Your task to perform on an android device: Clear the shopping cart on newegg. Add "dell alienware" to the cart on newegg Image 0: 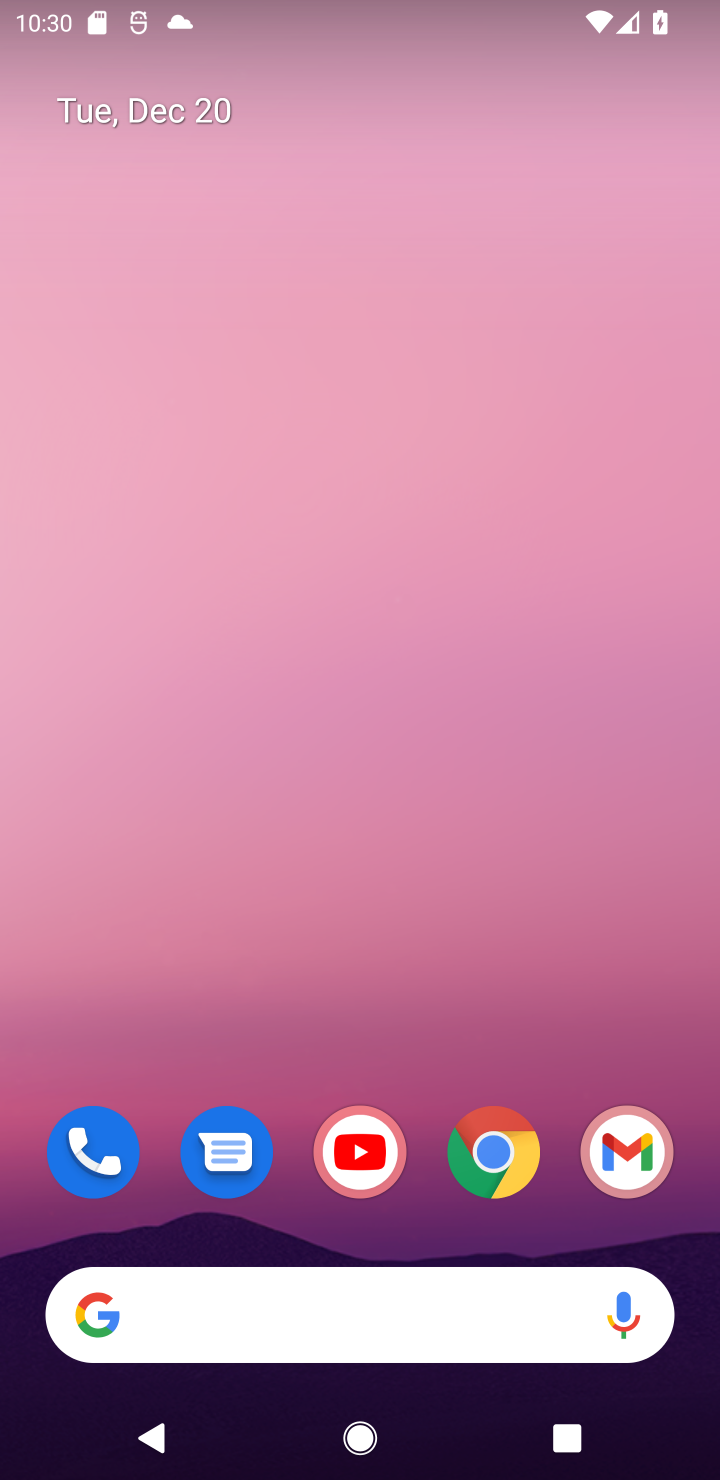
Step 0: click (469, 1173)
Your task to perform on an android device: Clear the shopping cart on newegg. Add "dell alienware" to the cart on newegg Image 1: 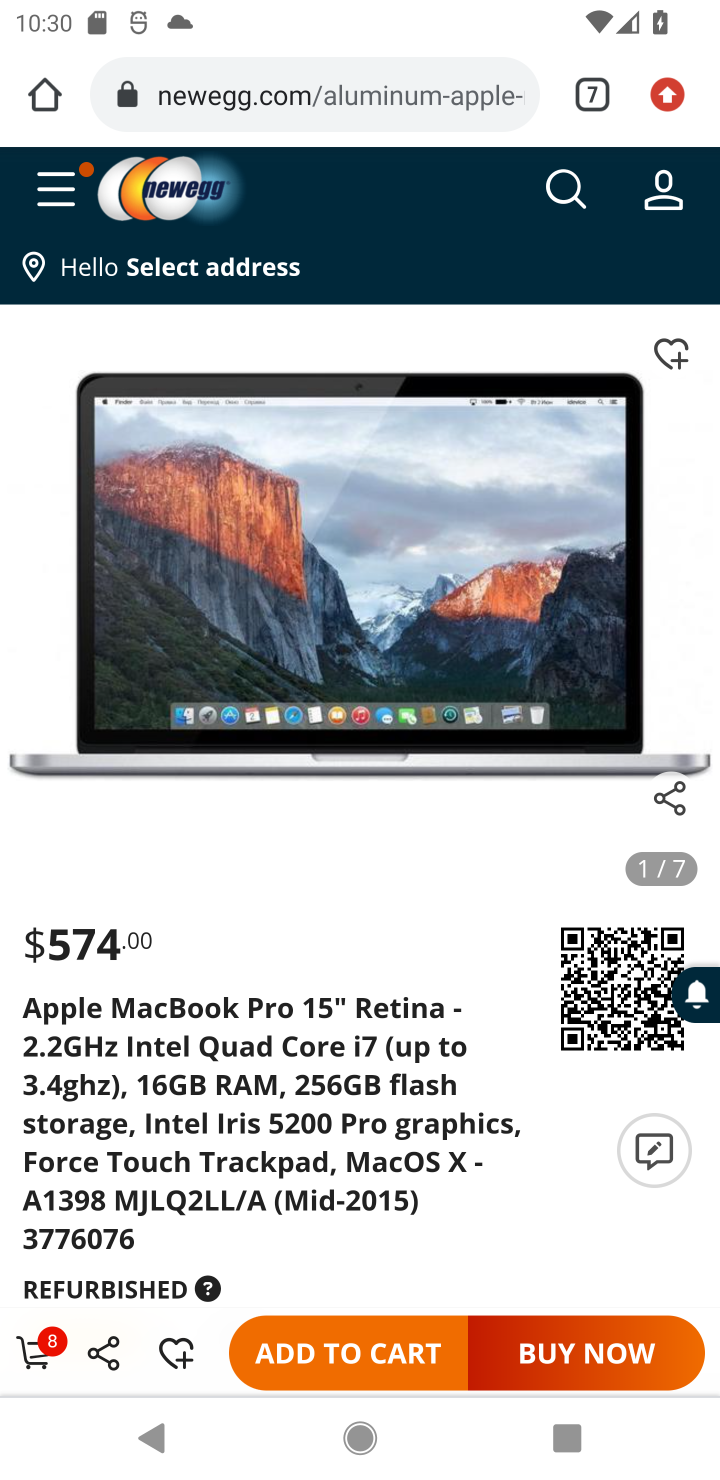
Step 1: click (568, 187)
Your task to perform on an android device: Clear the shopping cart on newegg. Add "dell alienware" to the cart on newegg Image 2: 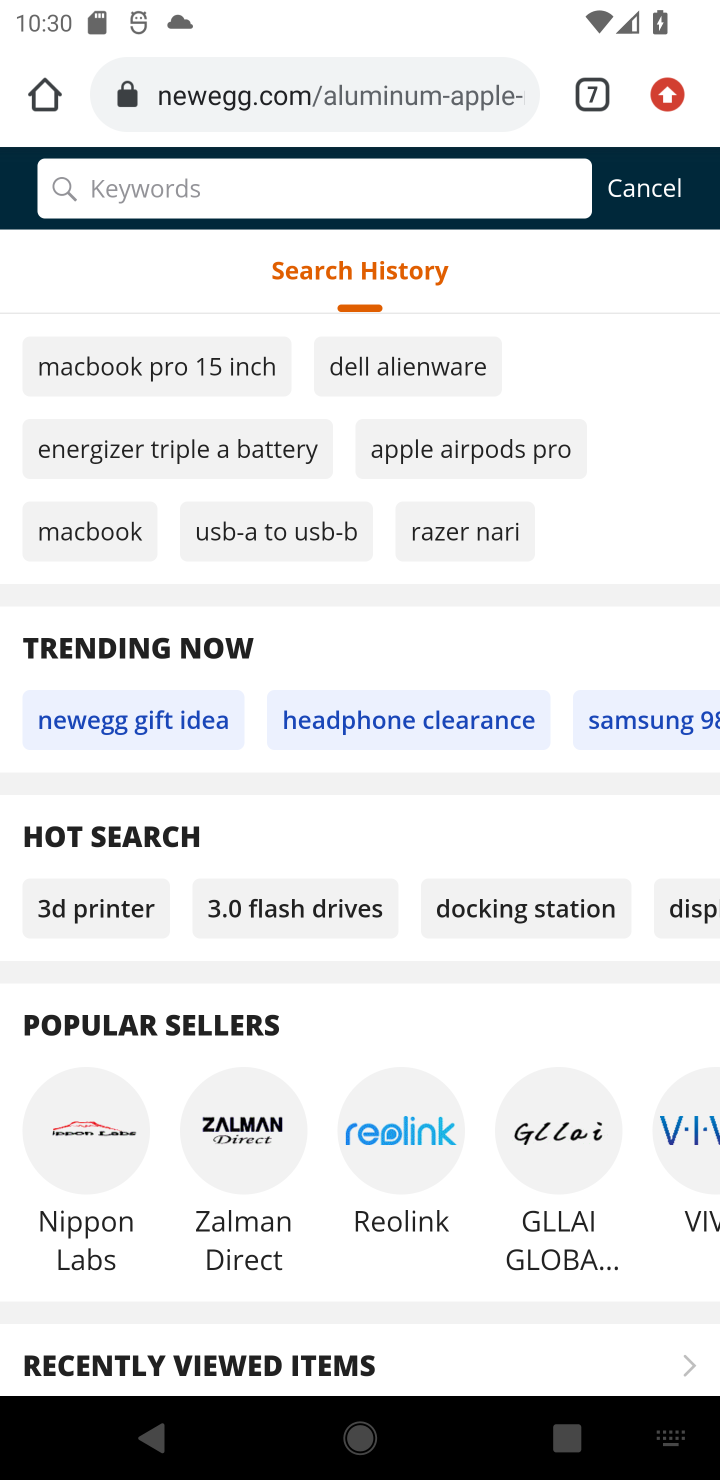
Step 2: click (636, 190)
Your task to perform on an android device: Clear the shopping cart on newegg. Add "dell alienware" to the cart on newegg Image 3: 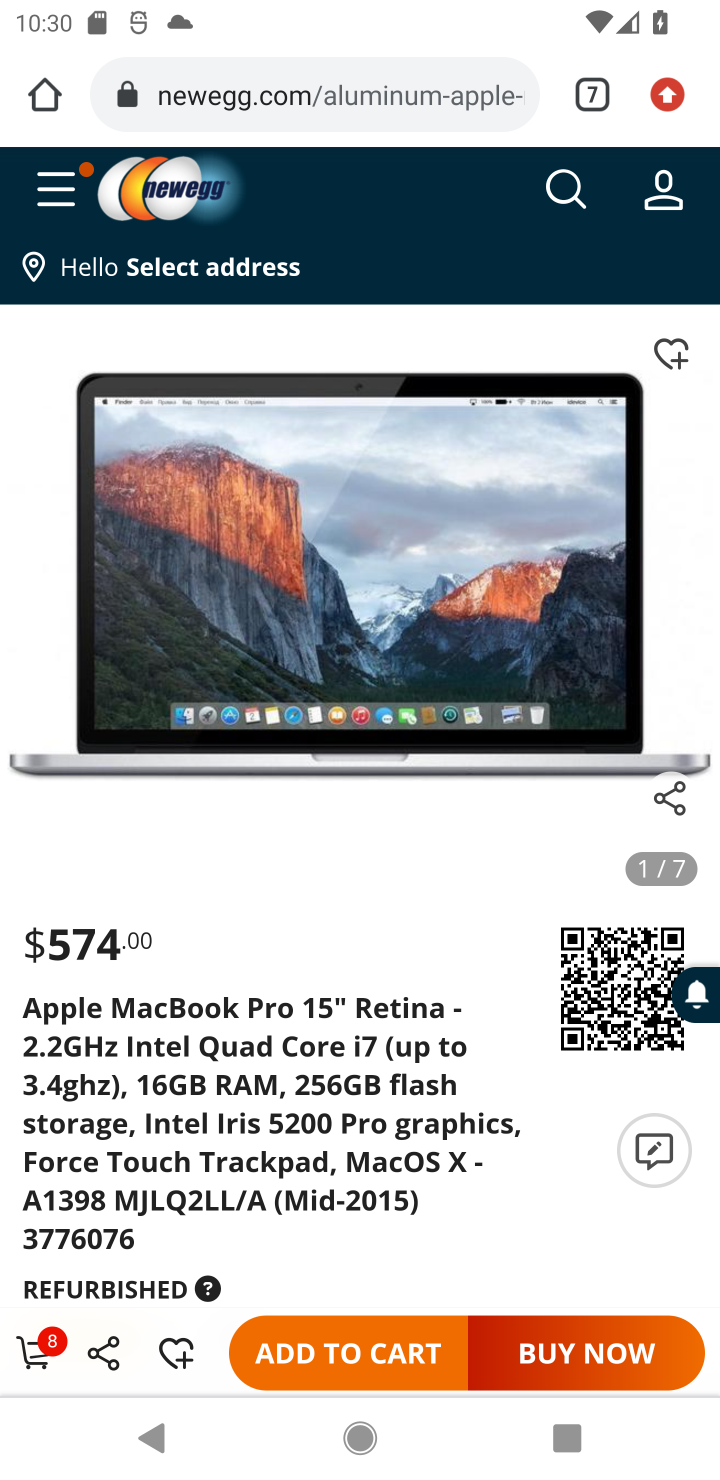
Step 3: click (44, 1350)
Your task to perform on an android device: Clear the shopping cart on newegg. Add "dell alienware" to the cart on newegg Image 4: 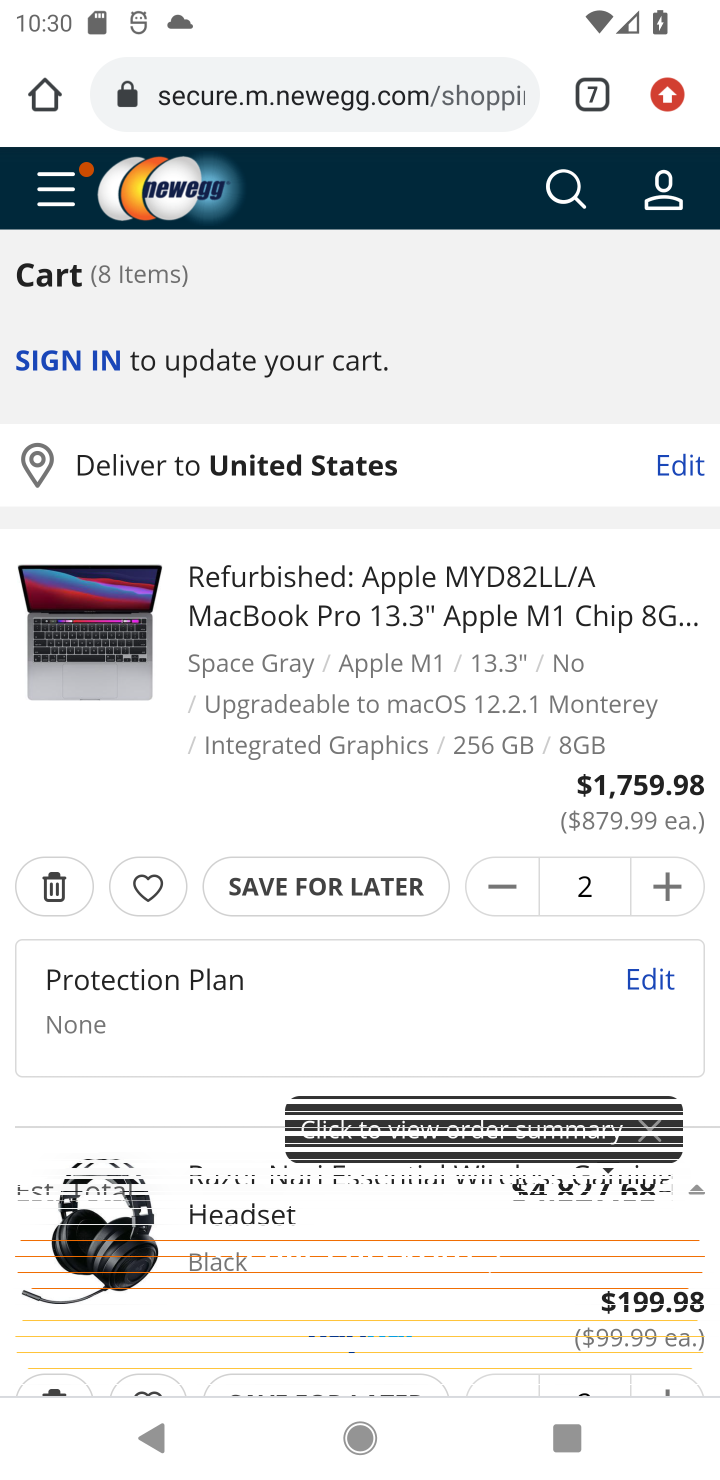
Step 4: click (43, 881)
Your task to perform on an android device: Clear the shopping cart on newegg. Add "dell alienware" to the cart on newegg Image 5: 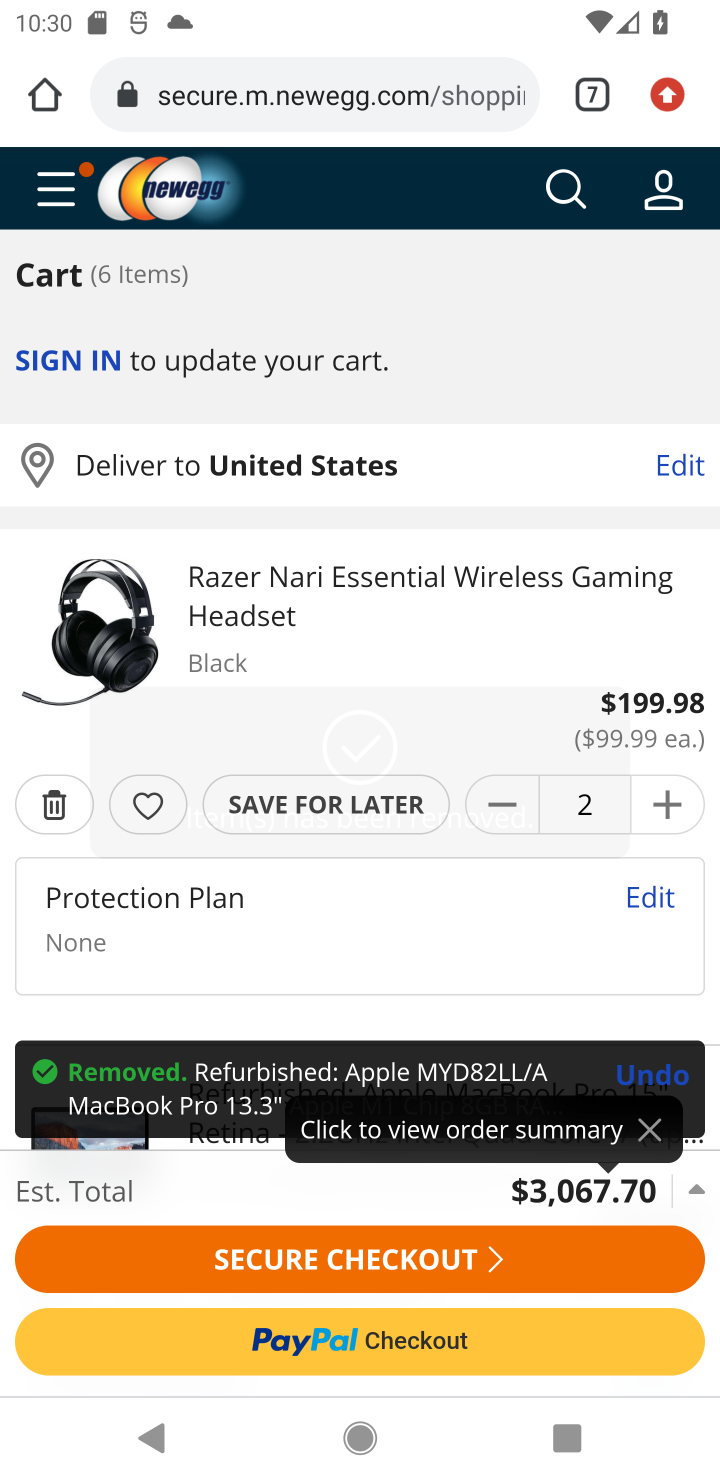
Step 5: click (55, 807)
Your task to perform on an android device: Clear the shopping cart on newegg. Add "dell alienware" to the cart on newegg Image 6: 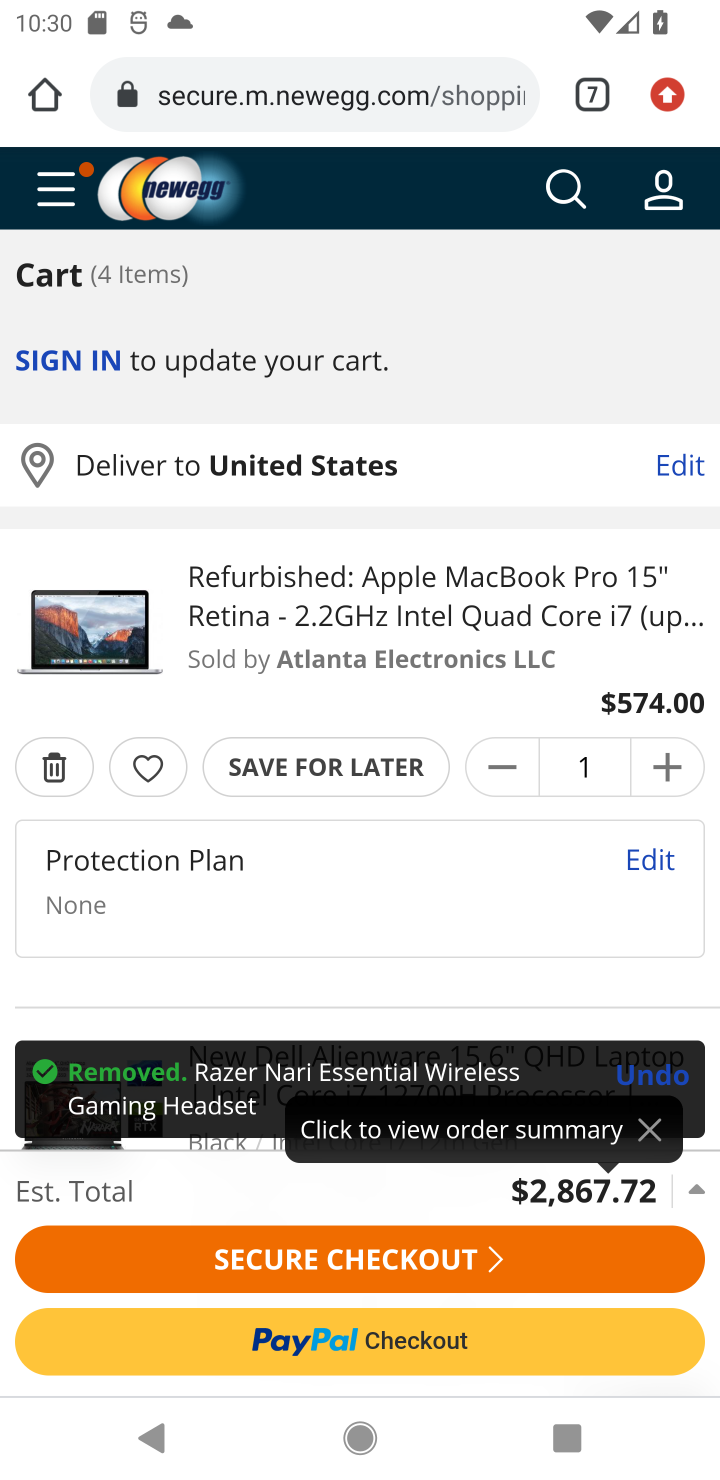
Step 6: click (56, 775)
Your task to perform on an android device: Clear the shopping cart on newegg. Add "dell alienware" to the cart on newegg Image 7: 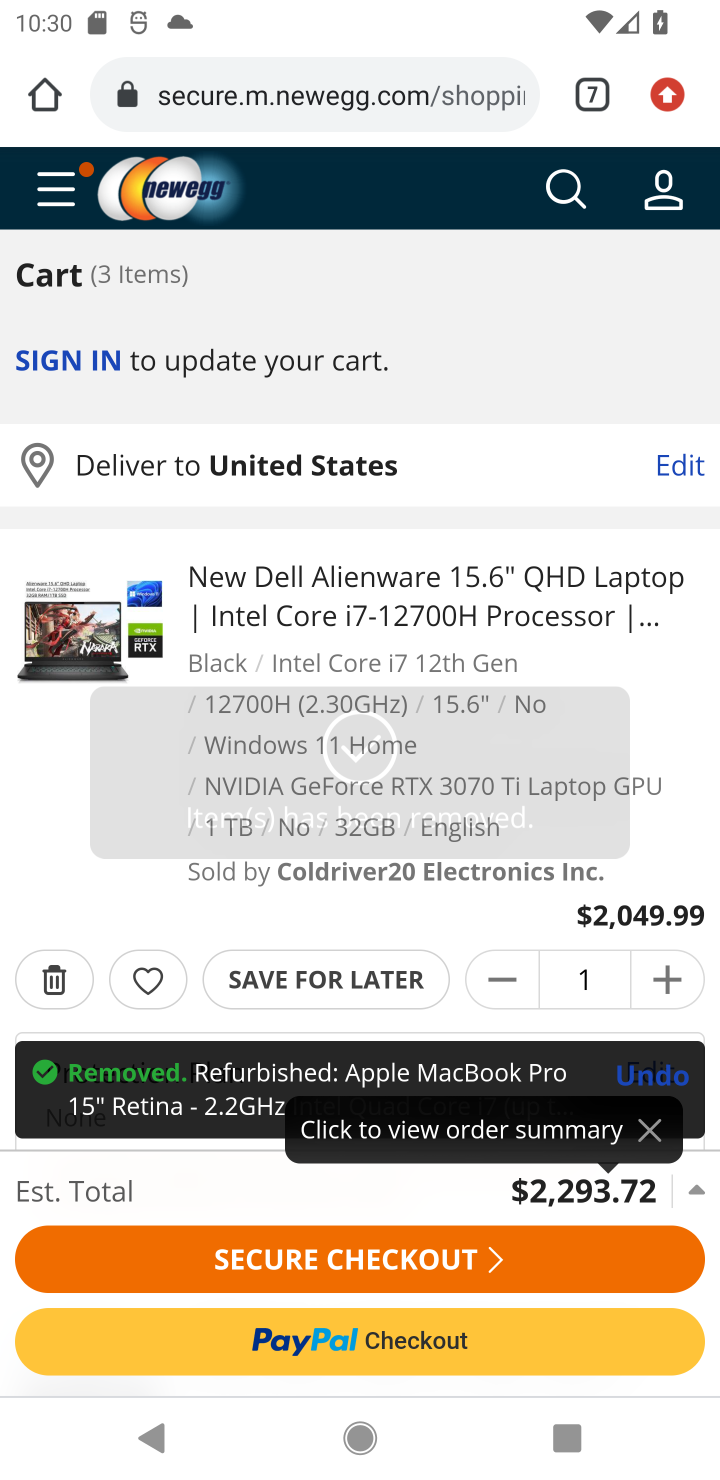
Step 7: click (51, 972)
Your task to perform on an android device: Clear the shopping cart on newegg. Add "dell alienware" to the cart on newegg Image 8: 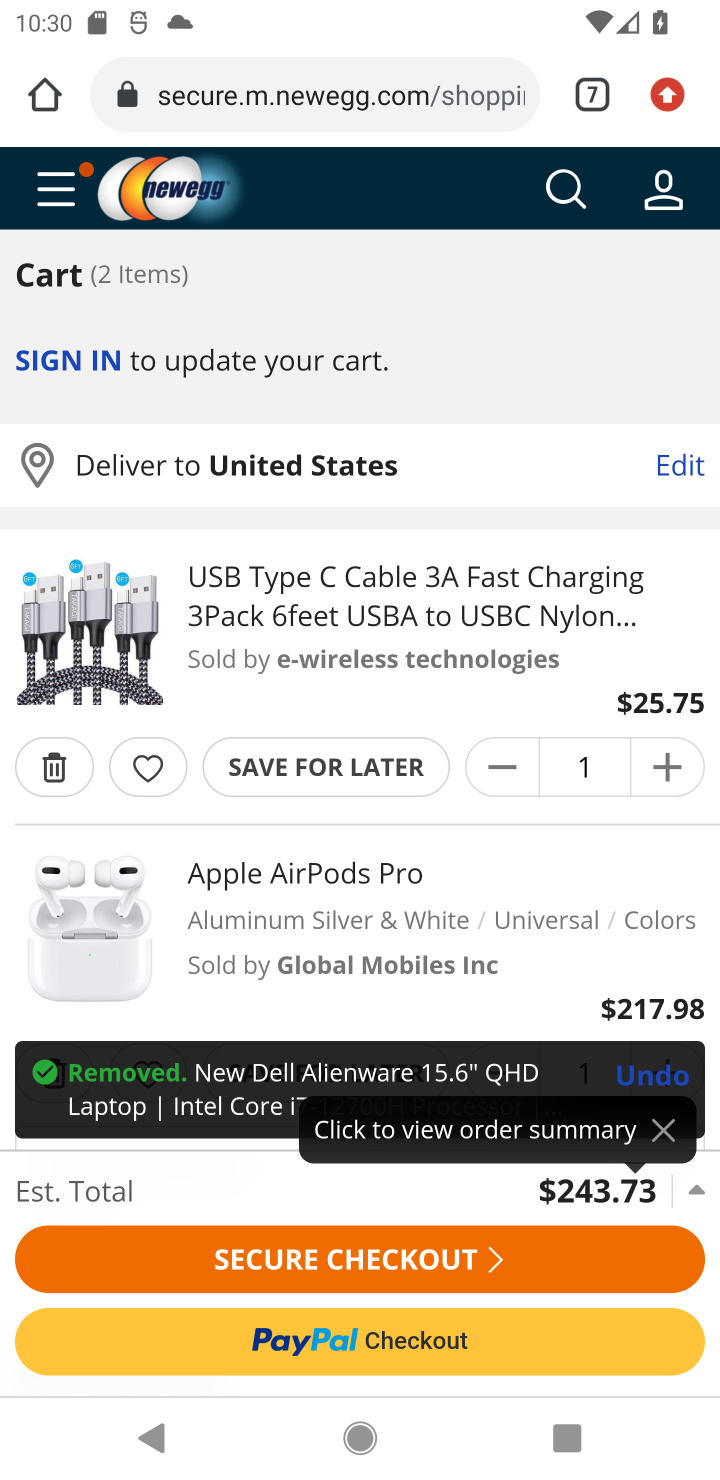
Step 8: click (52, 773)
Your task to perform on an android device: Clear the shopping cart on newegg. Add "dell alienware" to the cart on newegg Image 9: 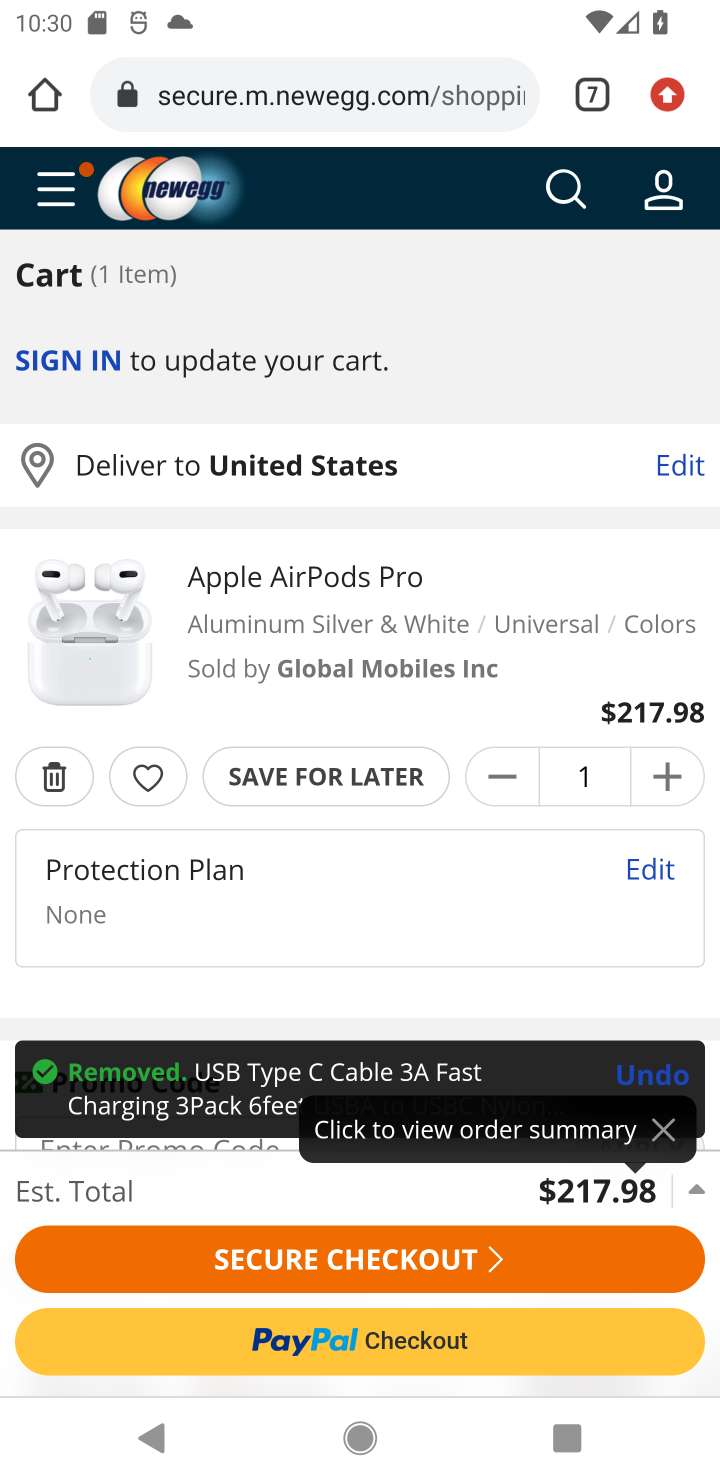
Step 9: click (52, 773)
Your task to perform on an android device: Clear the shopping cart on newegg. Add "dell alienware" to the cart on newegg Image 10: 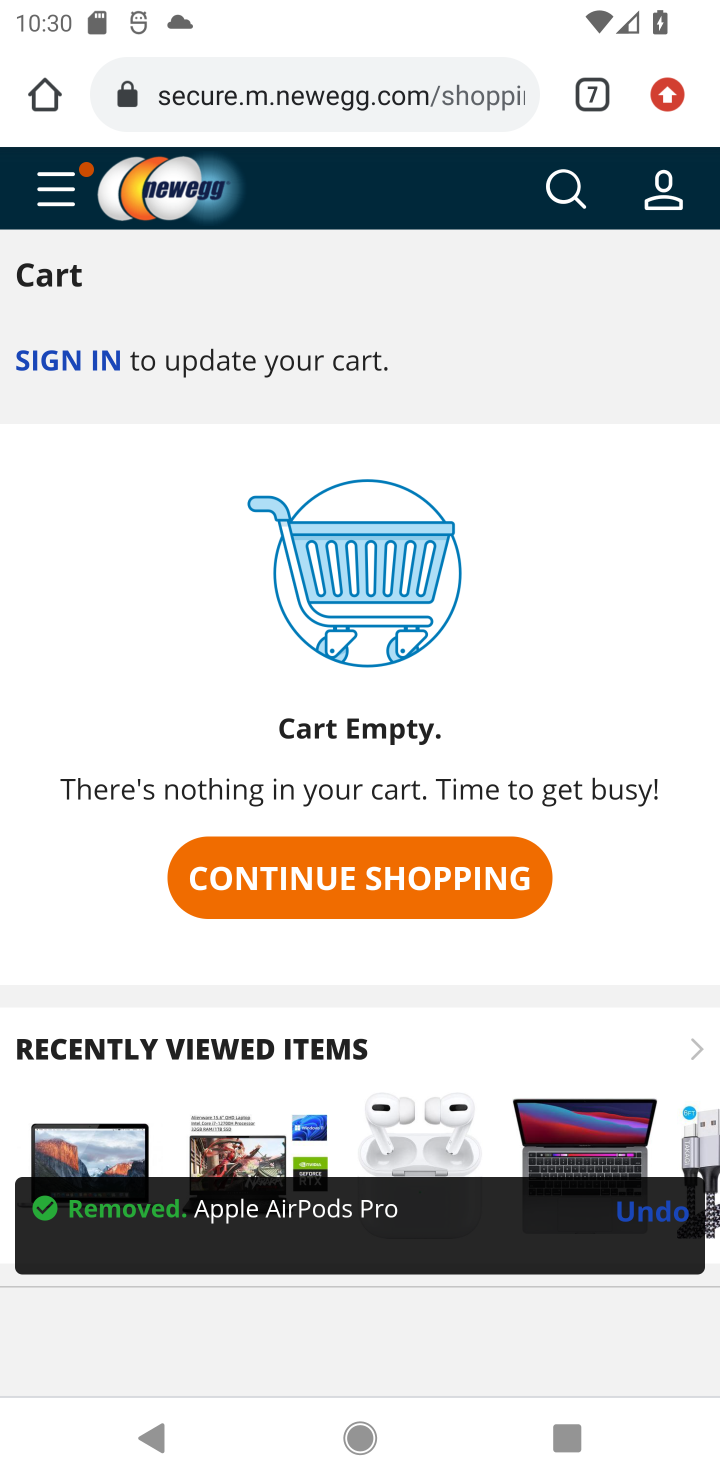
Step 10: click (566, 190)
Your task to perform on an android device: Clear the shopping cart on newegg. Add "dell alienware" to the cart on newegg Image 11: 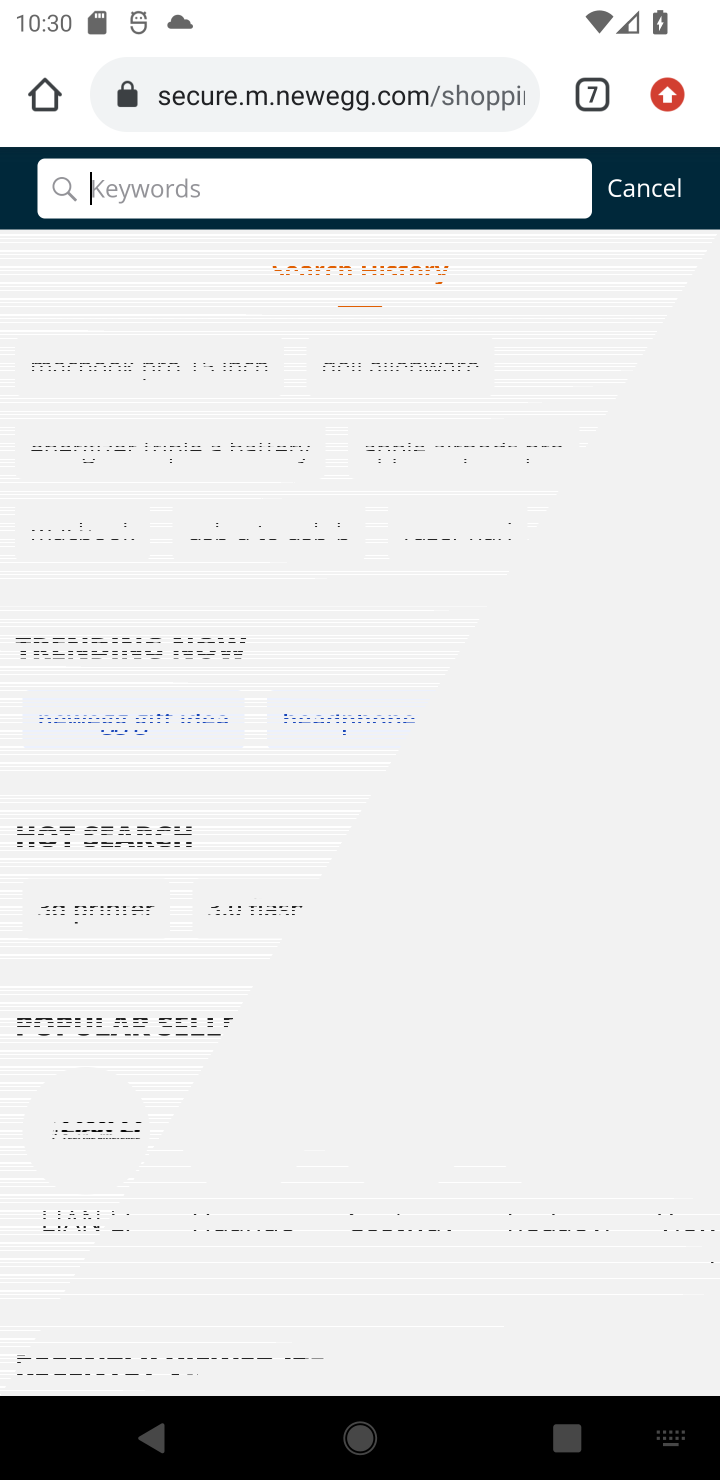
Step 11: type "dell alienware"
Your task to perform on an android device: Clear the shopping cart on newegg. Add "dell alienware" to the cart on newegg Image 12: 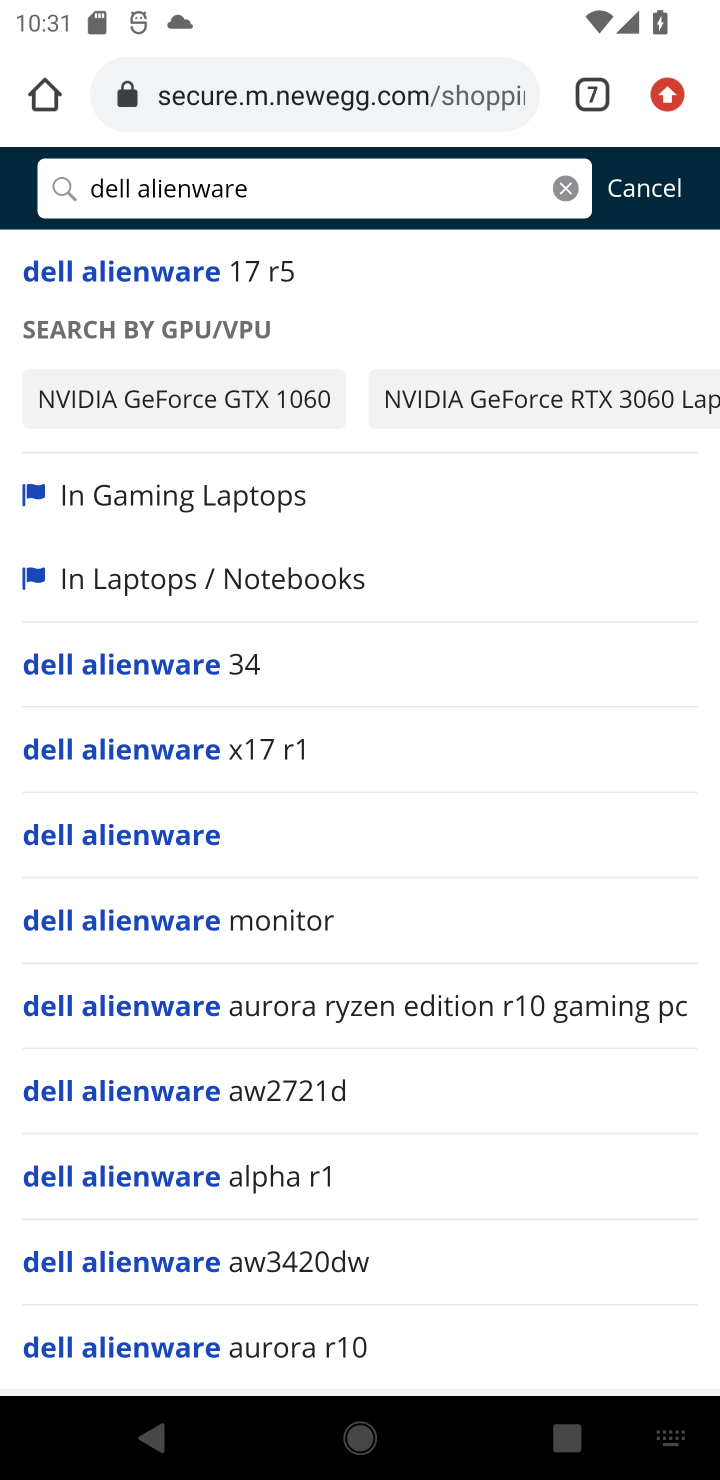
Step 12: click (144, 826)
Your task to perform on an android device: Clear the shopping cart on newegg. Add "dell alienware" to the cart on newegg Image 13: 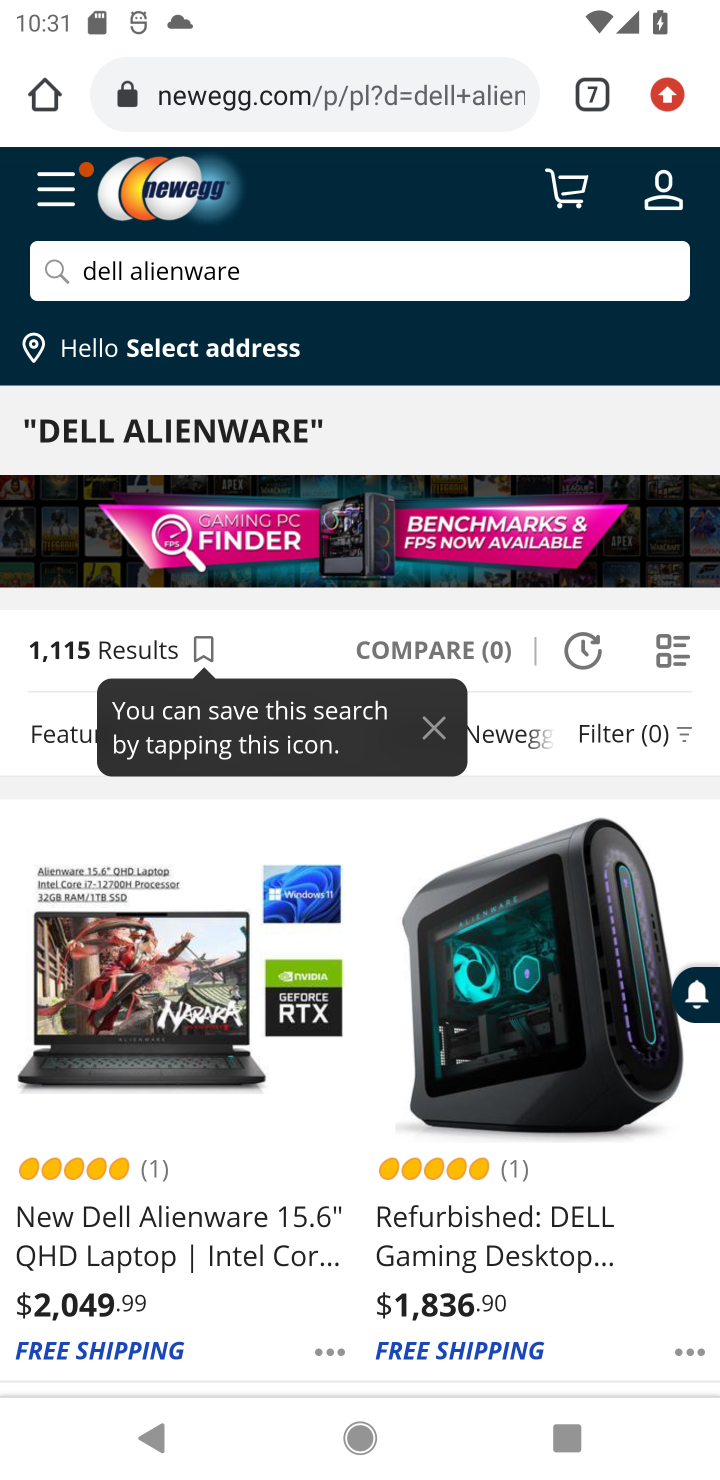
Step 13: click (206, 1217)
Your task to perform on an android device: Clear the shopping cart on newegg. Add "dell alienware" to the cart on newegg Image 14: 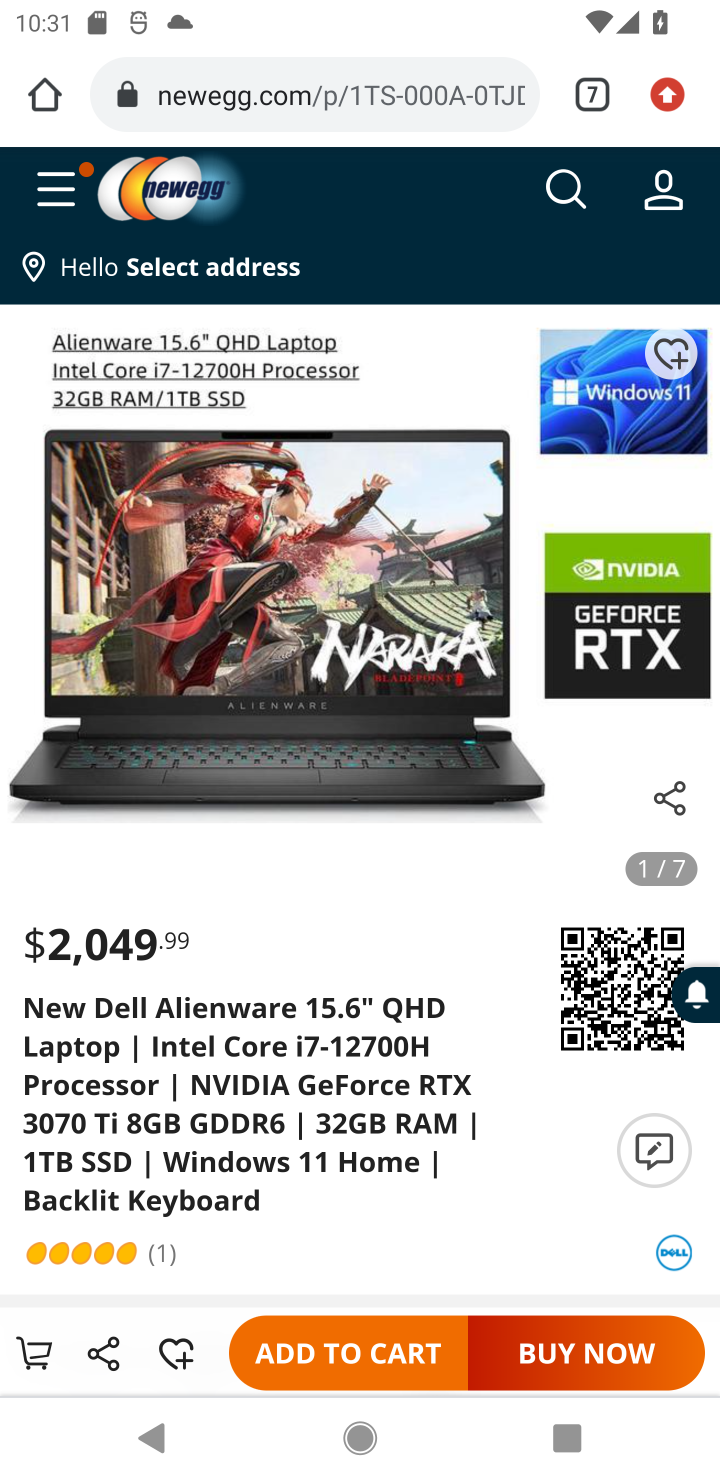
Step 14: click (344, 1338)
Your task to perform on an android device: Clear the shopping cart on newegg. Add "dell alienware" to the cart on newegg Image 15: 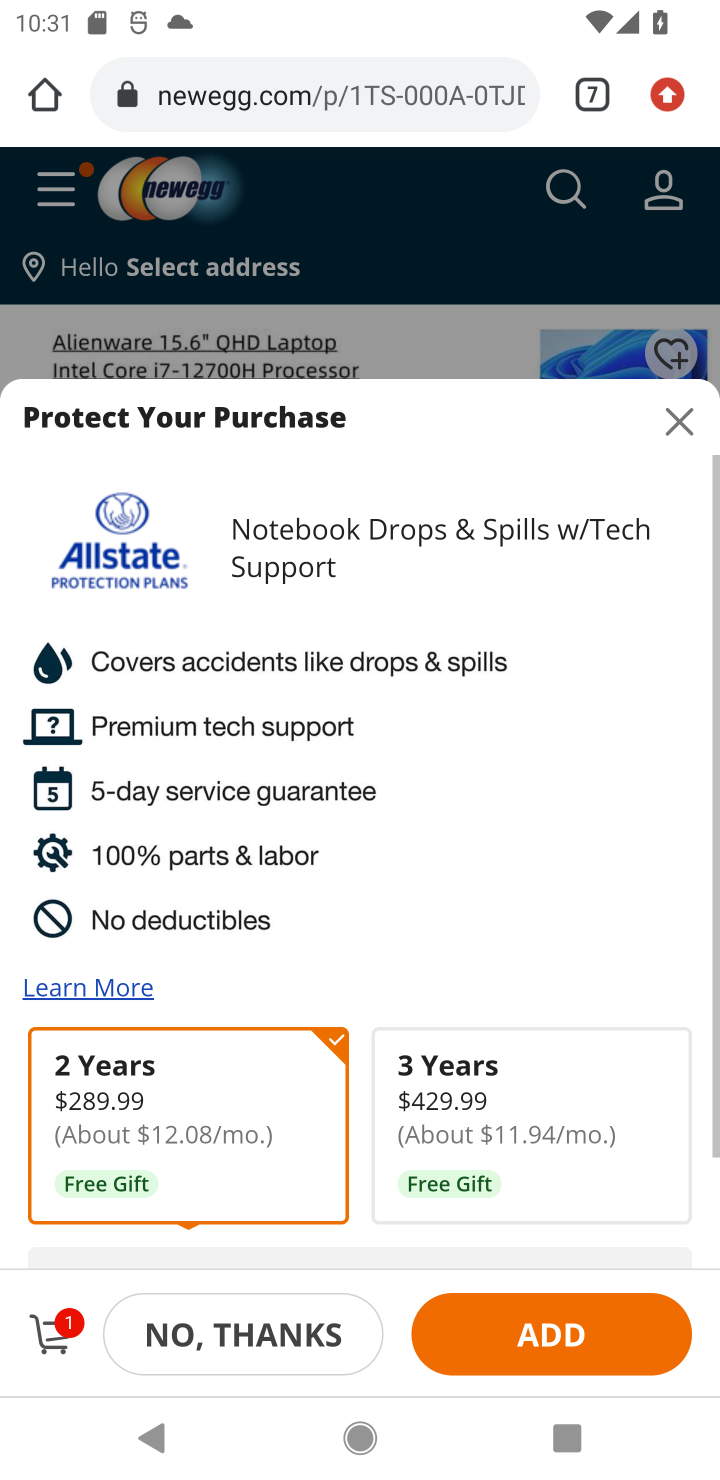
Step 15: click (666, 422)
Your task to perform on an android device: Clear the shopping cart on newegg. Add "dell alienware" to the cart on newegg Image 16: 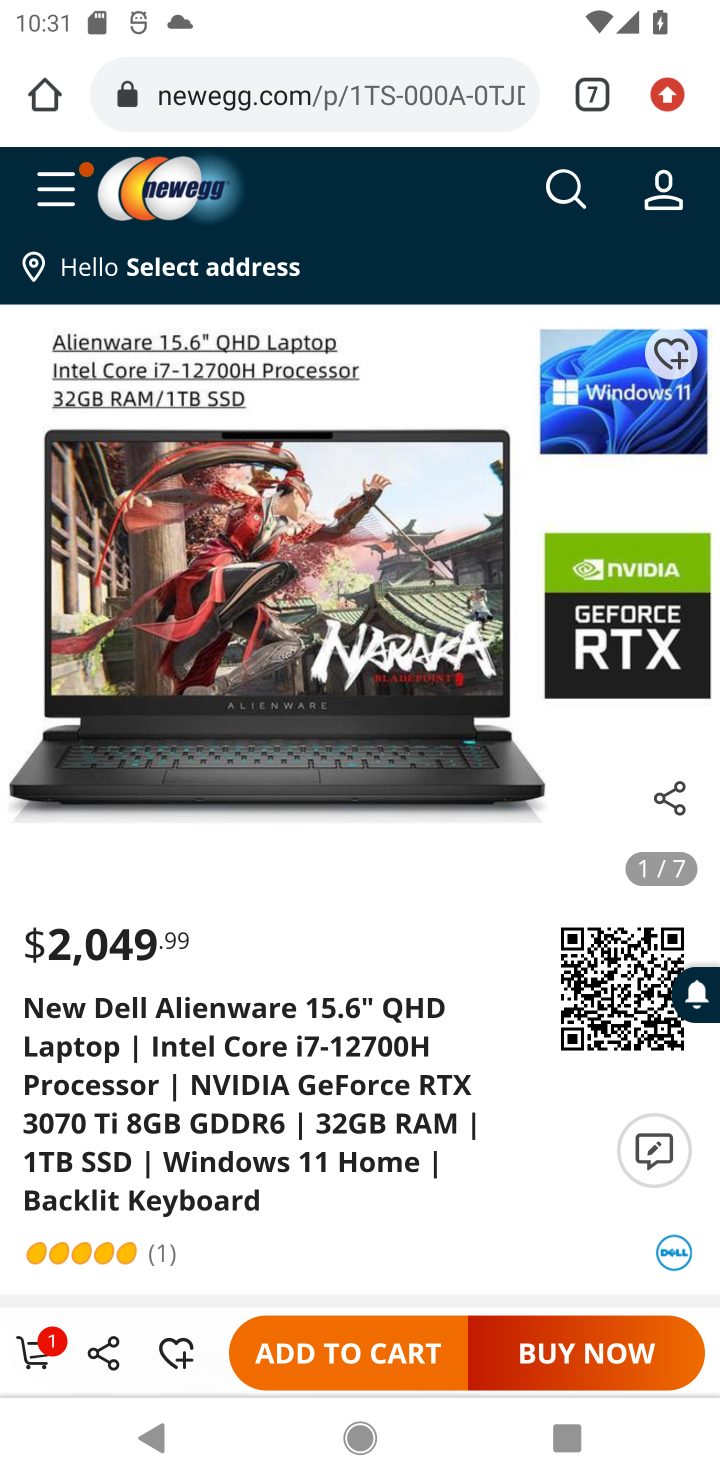
Step 16: task complete